Your task to perform on an android device: see tabs open on other devices in the chrome app Image 0: 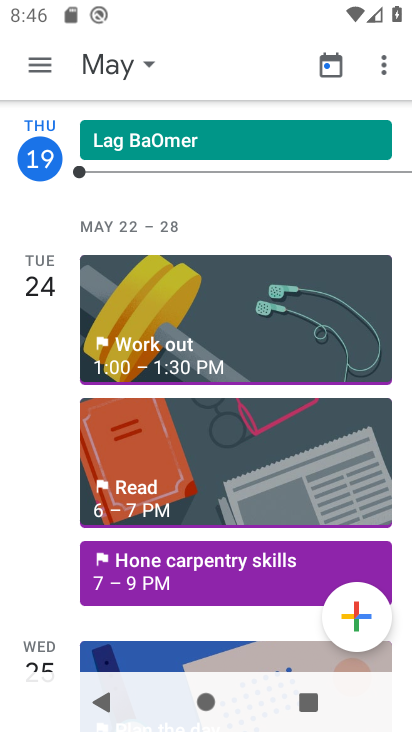
Step 0: press home button
Your task to perform on an android device: see tabs open on other devices in the chrome app Image 1: 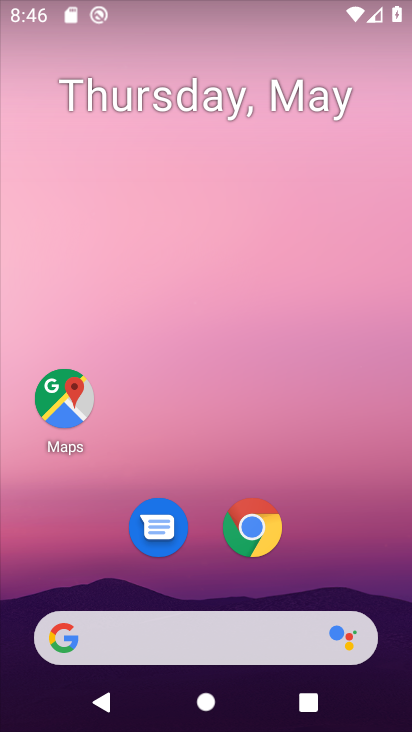
Step 1: click (245, 543)
Your task to perform on an android device: see tabs open on other devices in the chrome app Image 2: 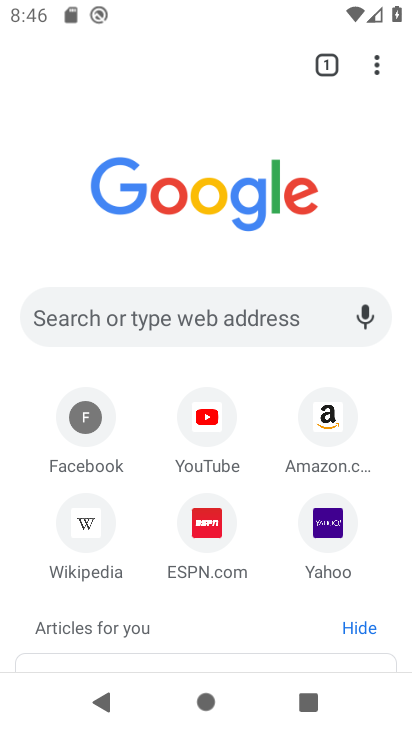
Step 2: click (377, 56)
Your task to perform on an android device: see tabs open on other devices in the chrome app Image 3: 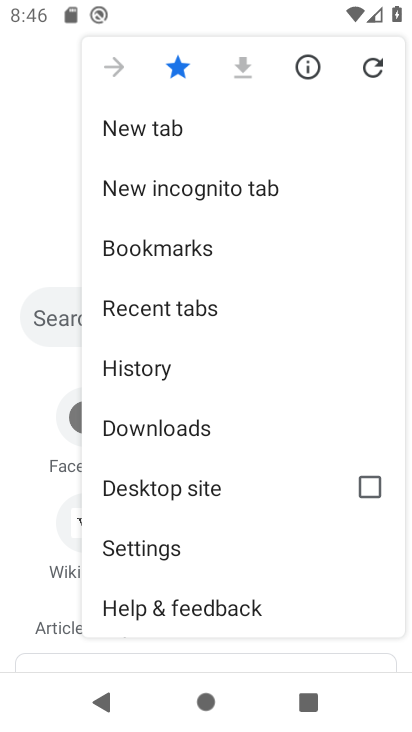
Step 3: click (189, 318)
Your task to perform on an android device: see tabs open on other devices in the chrome app Image 4: 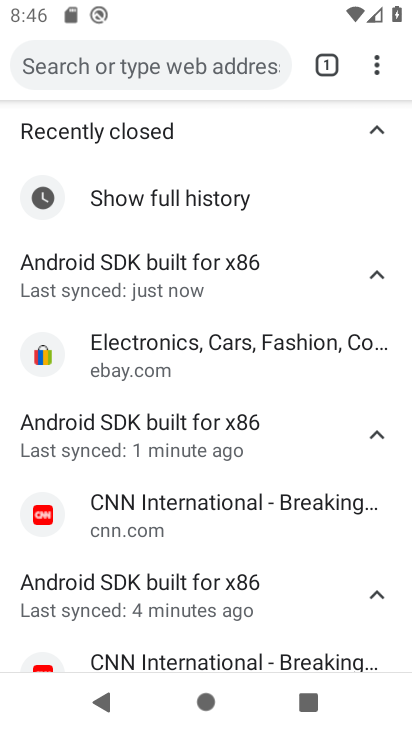
Step 4: task complete